Your task to perform on an android device: Open Google Maps and go to "Timeline" Image 0: 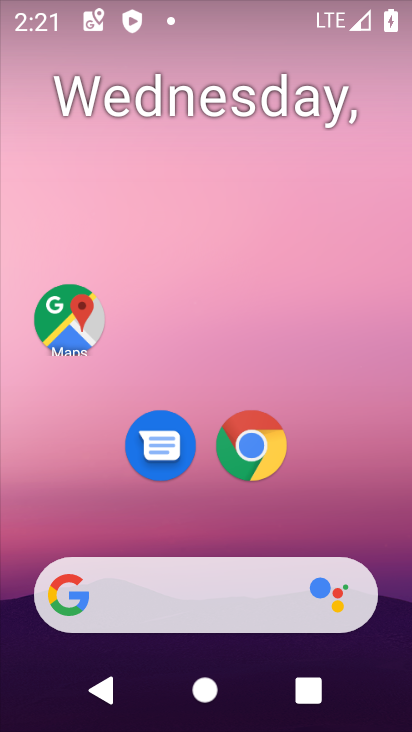
Step 0: drag from (226, 527) to (252, 165)
Your task to perform on an android device: Open Google Maps and go to "Timeline" Image 1: 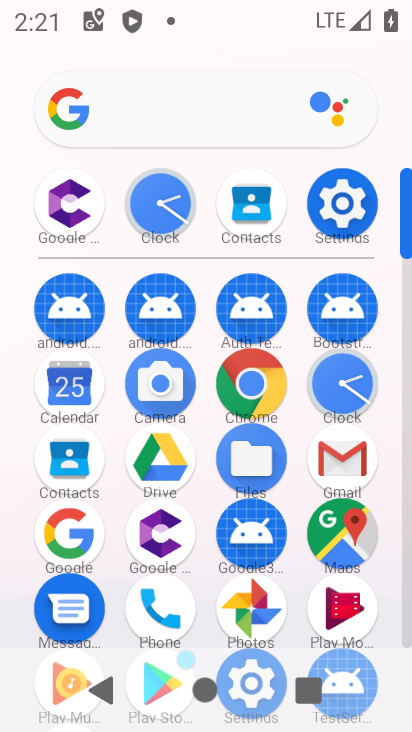
Step 1: click (328, 528)
Your task to perform on an android device: Open Google Maps and go to "Timeline" Image 2: 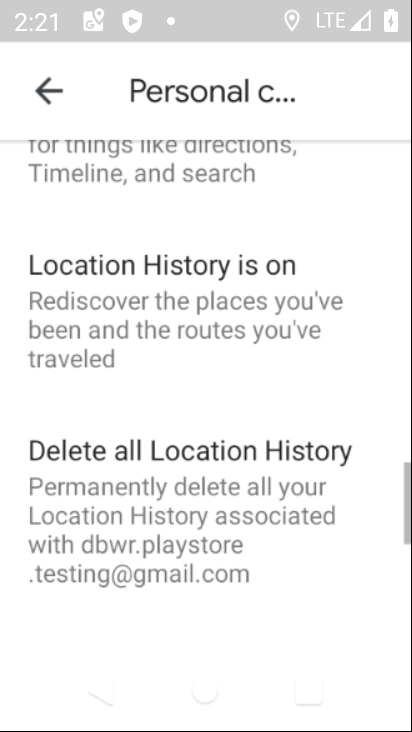
Step 2: click (43, 96)
Your task to perform on an android device: Open Google Maps and go to "Timeline" Image 3: 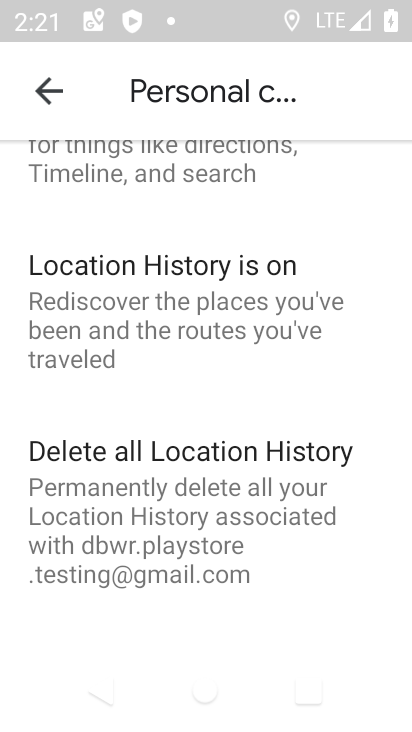
Step 3: drag from (150, 204) to (142, 512)
Your task to perform on an android device: Open Google Maps and go to "Timeline" Image 4: 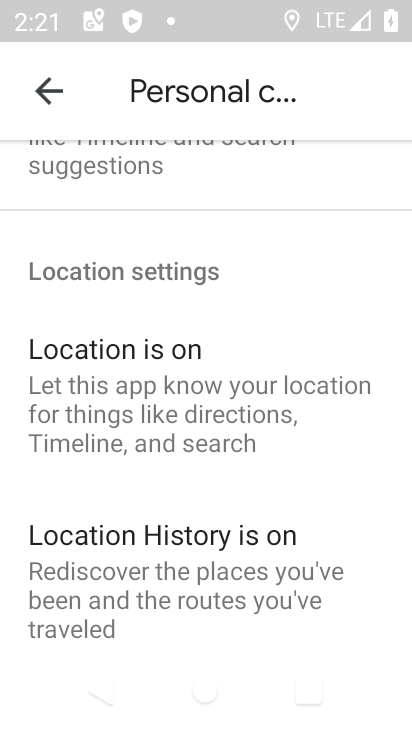
Step 4: click (48, 87)
Your task to perform on an android device: Open Google Maps and go to "Timeline" Image 5: 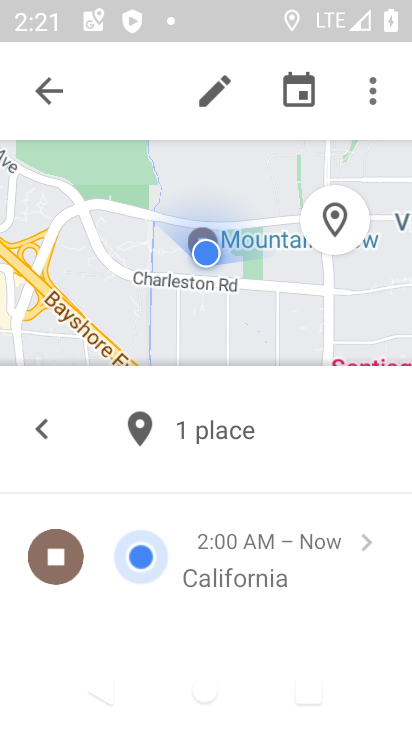
Step 5: click (48, 87)
Your task to perform on an android device: Open Google Maps and go to "Timeline" Image 6: 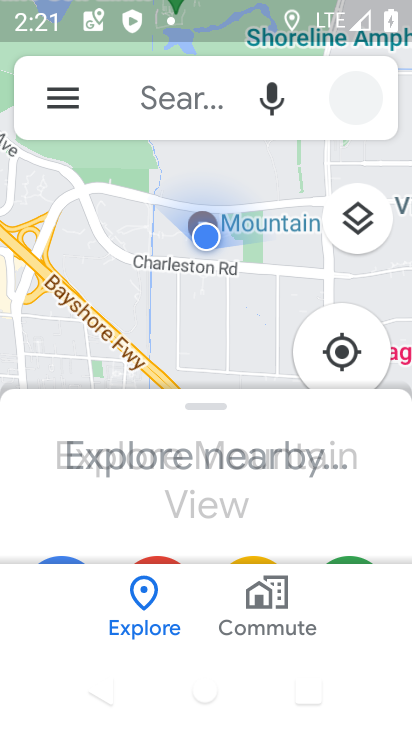
Step 6: click (48, 87)
Your task to perform on an android device: Open Google Maps and go to "Timeline" Image 7: 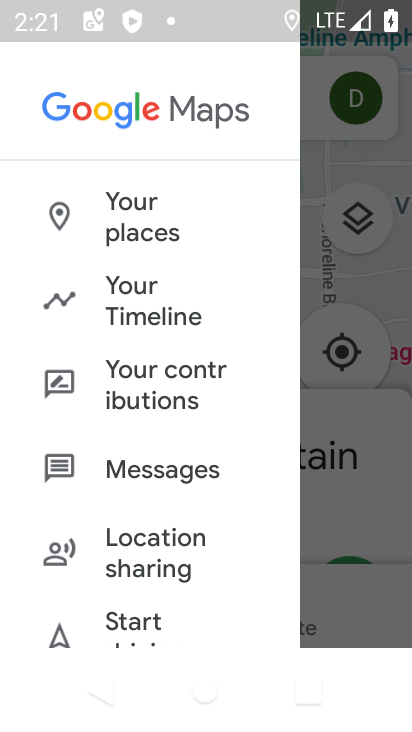
Step 7: click (166, 305)
Your task to perform on an android device: Open Google Maps and go to "Timeline" Image 8: 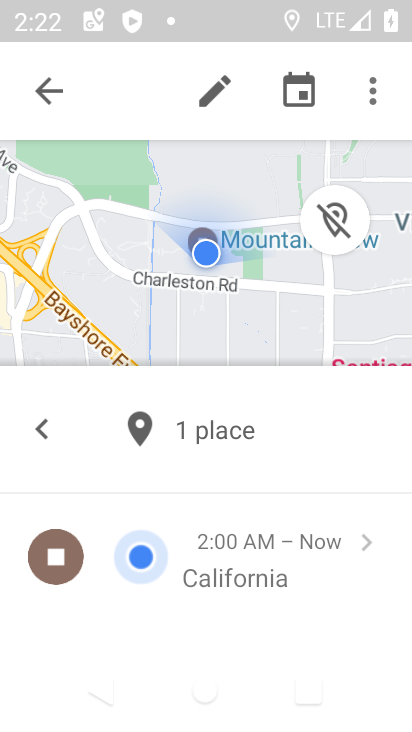
Step 8: task complete